Your task to perform on an android device: turn off sleep mode Image 0: 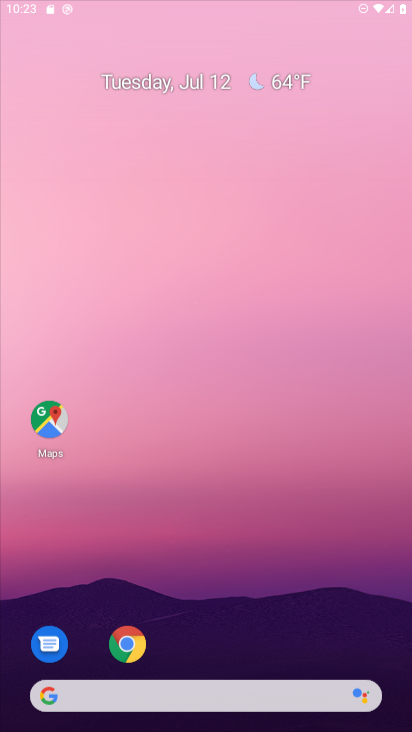
Step 0: drag from (254, 661) to (176, 54)
Your task to perform on an android device: turn off sleep mode Image 1: 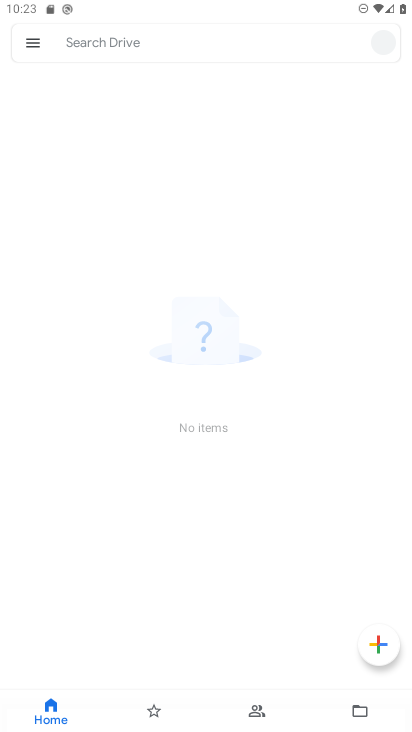
Step 1: press home button
Your task to perform on an android device: turn off sleep mode Image 2: 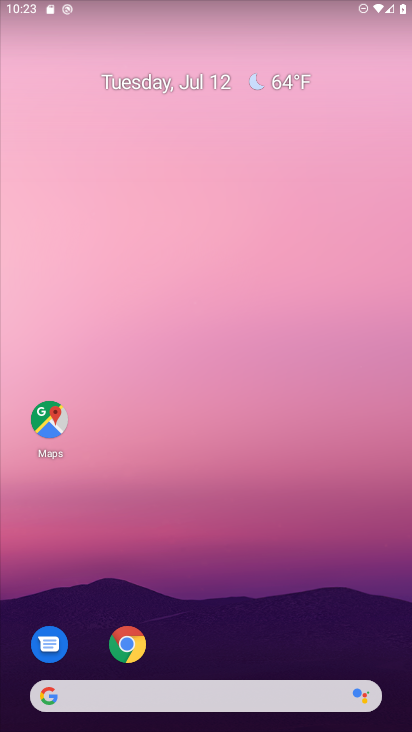
Step 2: drag from (250, 666) to (228, 194)
Your task to perform on an android device: turn off sleep mode Image 3: 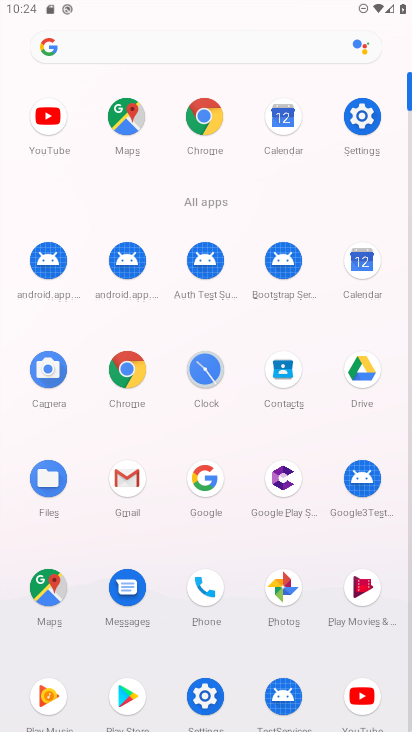
Step 3: click (341, 141)
Your task to perform on an android device: turn off sleep mode Image 4: 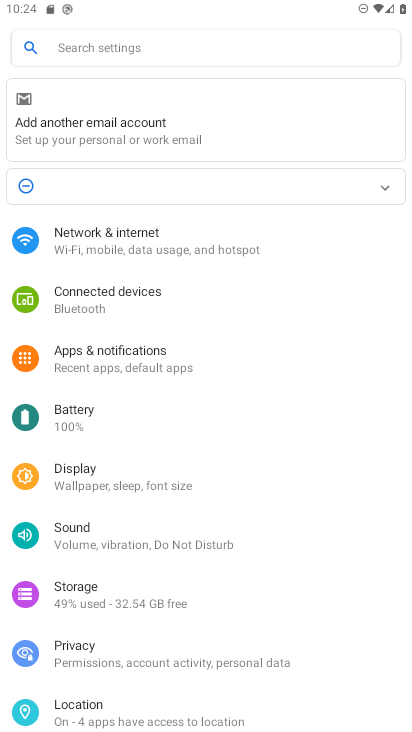
Step 4: click (185, 480)
Your task to perform on an android device: turn off sleep mode Image 5: 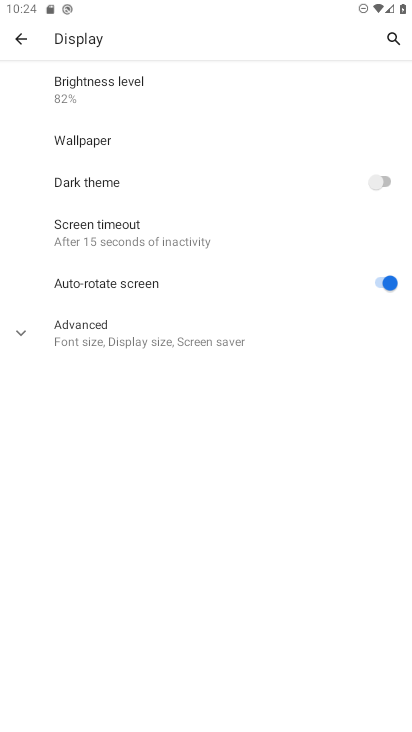
Step 5: click (247, 252)
Your task to perform on an android device: turn off sleep mode Image 6: 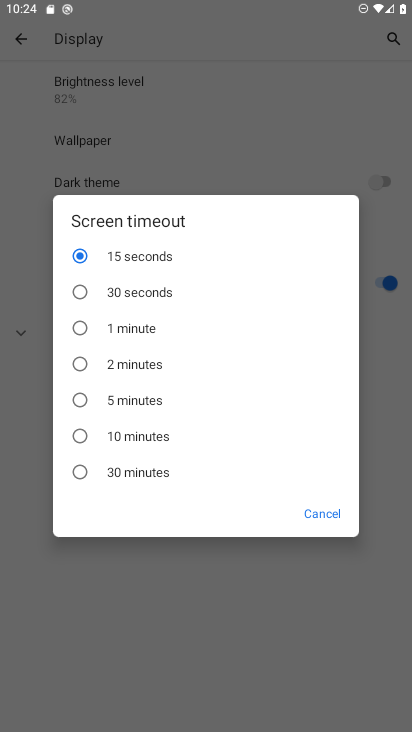
Step 6: task complete